Your task to perform on an android device: How much does a 2 bedroom apartment rent for in Denver? Image 0: 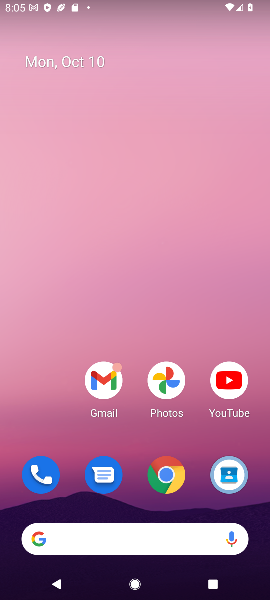
Step 0: click (160, 467)
Your task to perform on an android device: How much does a 2 bedroom apartment rent for in Denver? Image 1: 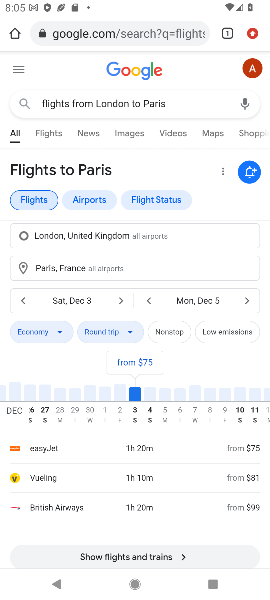
Step 1: click (101, 34)
Your task to perform on an android device: How much does a 2 bedroom apartment rent for in Denver? Image 2: 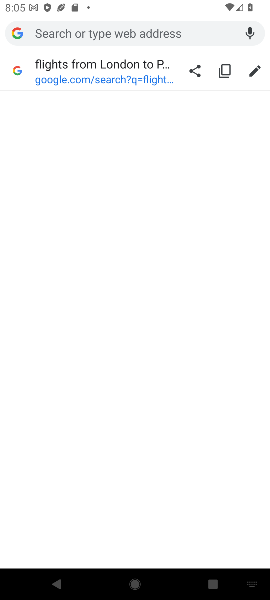
Step 2: type "How much does a 2 bedroom apartment rent for in Denver?"
Your task to perform on an android device: How much does a 2 bedroom apartment rent for in Denver? Image 3: 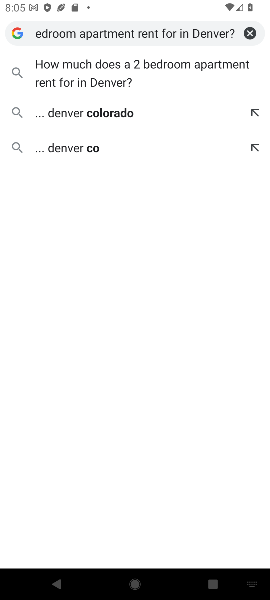
Step 3: click (101, 34)
Your task to perform on an android device: How much does a 2 bedroom apartment rent for in Denver? Image 4: 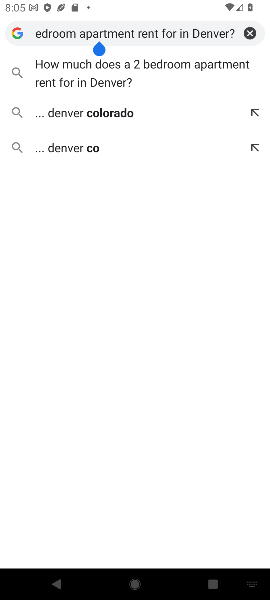
Step 4: click (102, 75)
Your task to perform on an android device: How much does a 2 bedroom apartment rent for in Denver? Image 5: 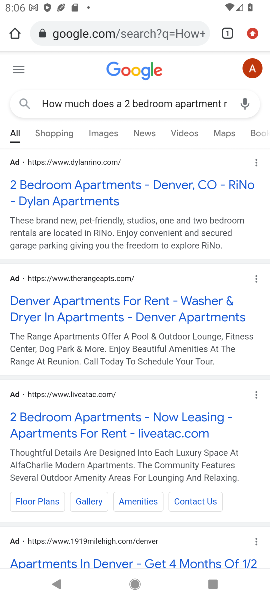
Step 5: click (135, 181)
Your task to perform on an android device: How much does a 2 bedroom apartment rent for in Denver? Image 6: 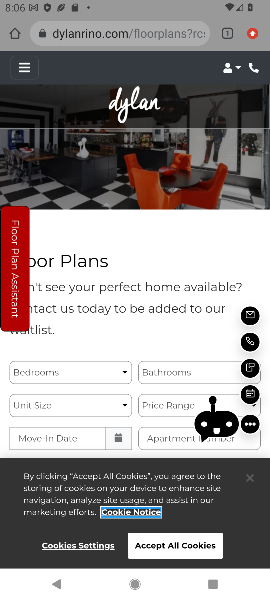
Step 6: task complete